Your task to perform on an android device: search for starred emails in the gmail app Image 0: 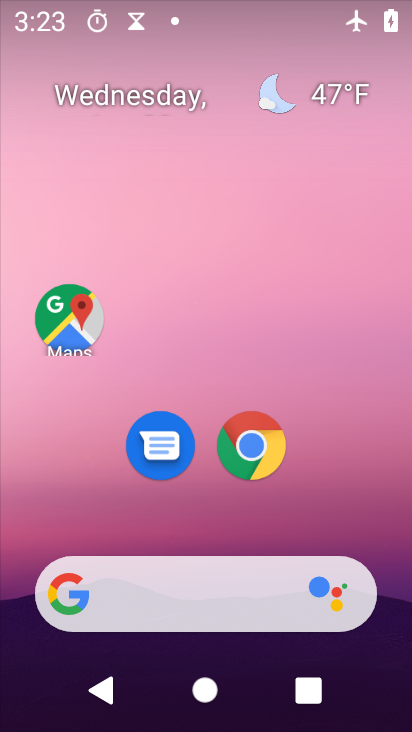
Step 0: drag from (360, 542) to (383, 43)
Your task to perform on an android device: search for starred emails in the gmail app Image 1: 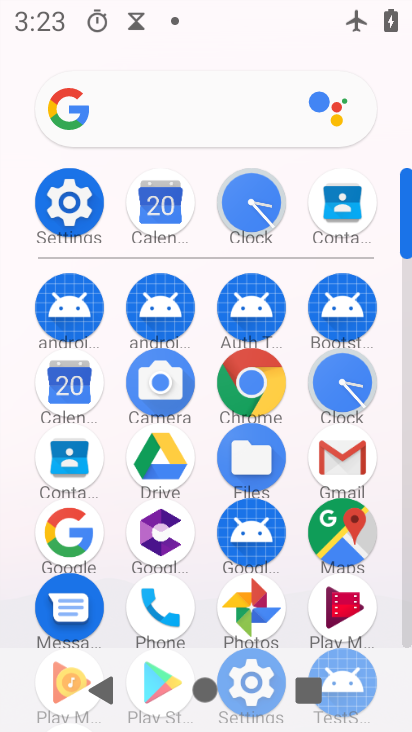
Step 1: click (341, 452)
Your task to perform on an android device: search for starred emails in the gmail app Image 2: 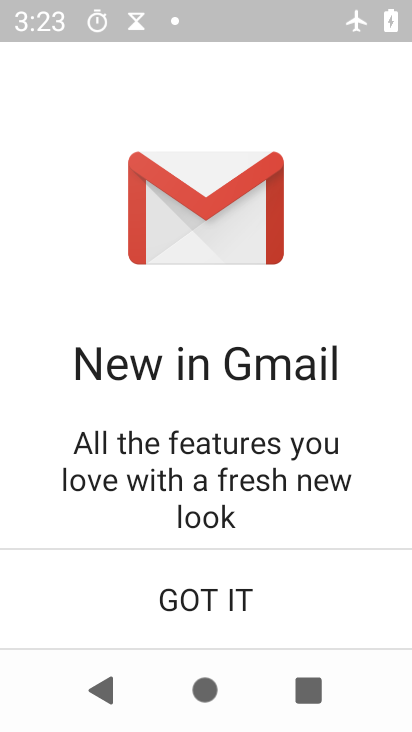
Step 2: click (210, 594)
Your task to perform on an android device: search for starred emails in the gmail app Image 3: 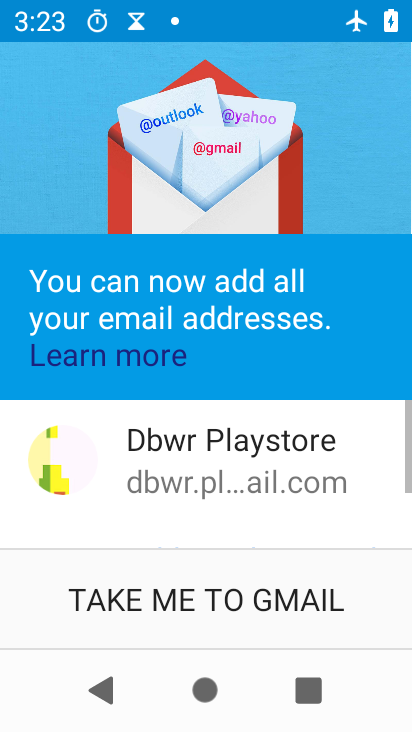
Step 3: click (210, 594)
Your task to perform on an android device: search for starred emails in the gmail app Image 4: 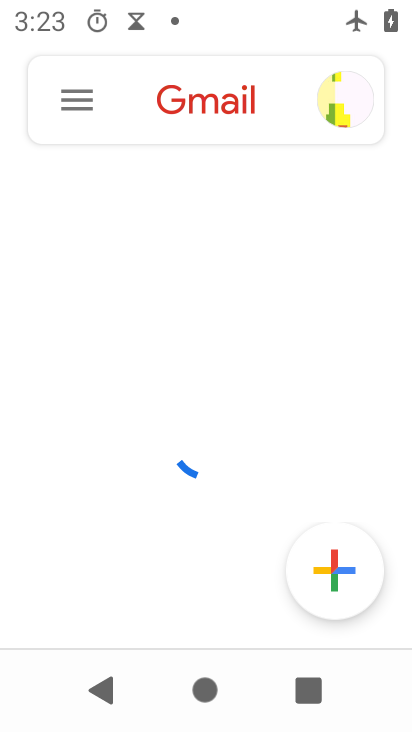
Step 4: click (78, 107)
Your task to perform on an android device: search for starred emails in the gmail app Image 5: 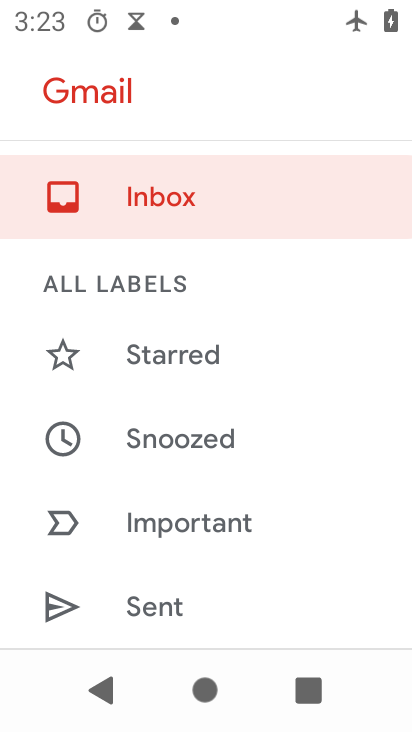
Step 5: click (198, 361)
Your task to perform on an android device: search for starred emails in the gmail app Image 6: 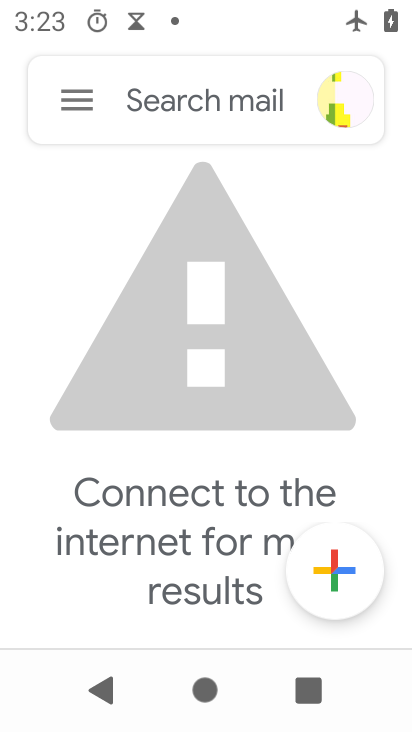
Step 6: task complete